Your task to perform on an android device: Do I have any events tomorrow? Image 0: 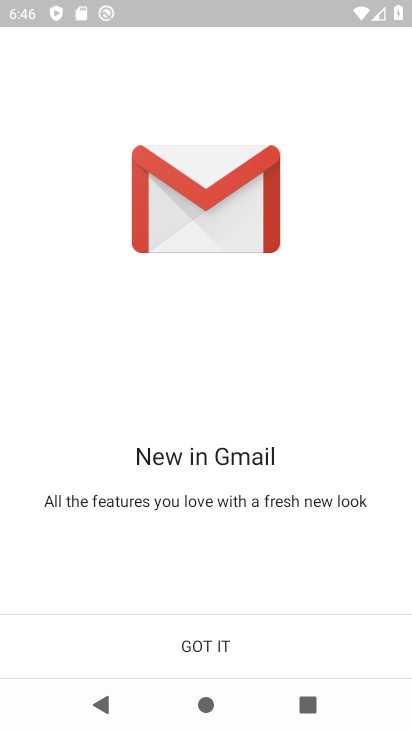
Step 0: press home button
Your task to perform on an android device: Do I have any events tomorrow? Image 1: 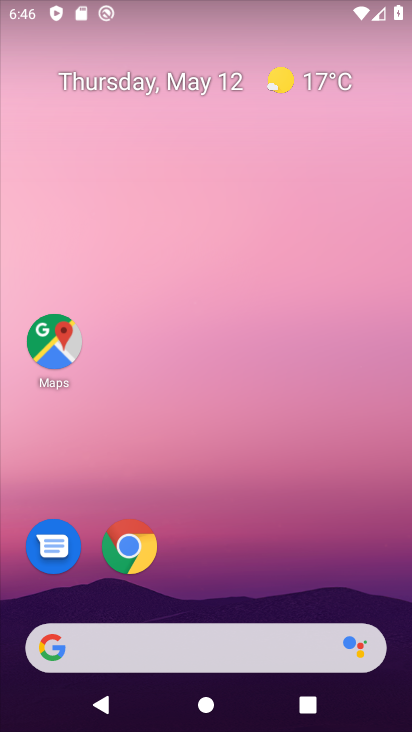
Step 1: drag from (216, 523) to (169, 121)
Your task to perform on an android device: Do I have any events tomorrow? Image 2: 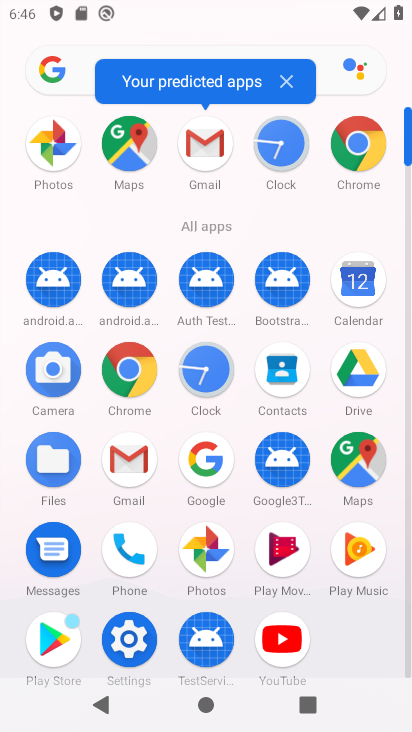
Step 2: click (358, 277)
Your task to perform on an android device: Do I have any events tomorrow? Image 3: 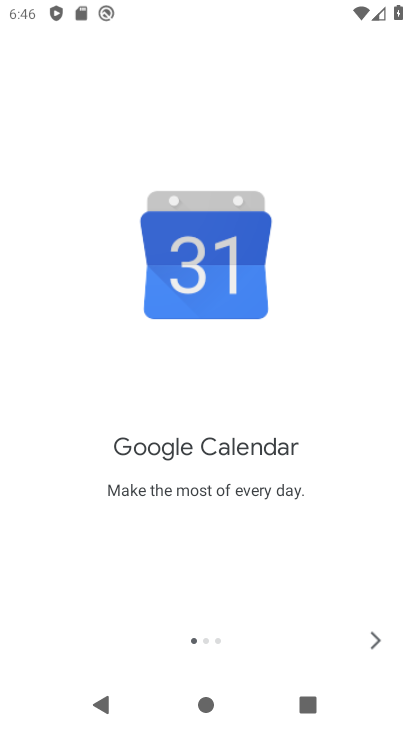
Step 3: click (372, 641)
Your task to perform on an android device: Do I have any events tomorrow? Image 4: 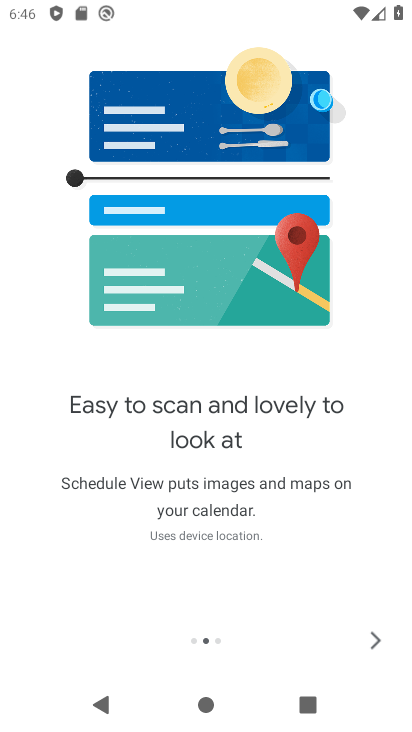
Step 4: click (372, 641)
Your task to perform on an android device: Do I have any events tomorrow? Image 5: 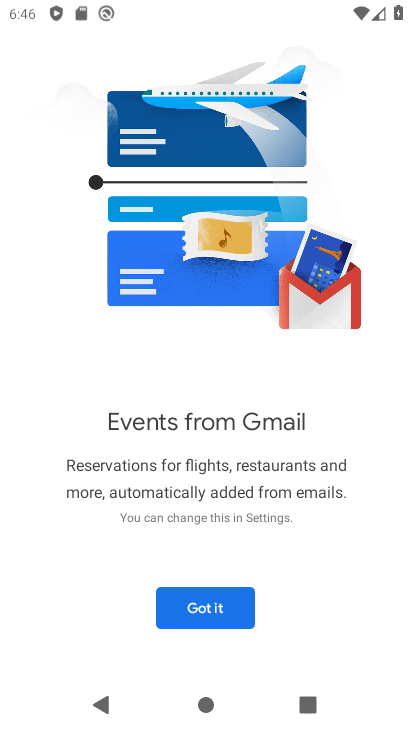
Step 5: click (214, 608)
Your task to perform on an android device: Do I have any events tomorrow? Image 6: 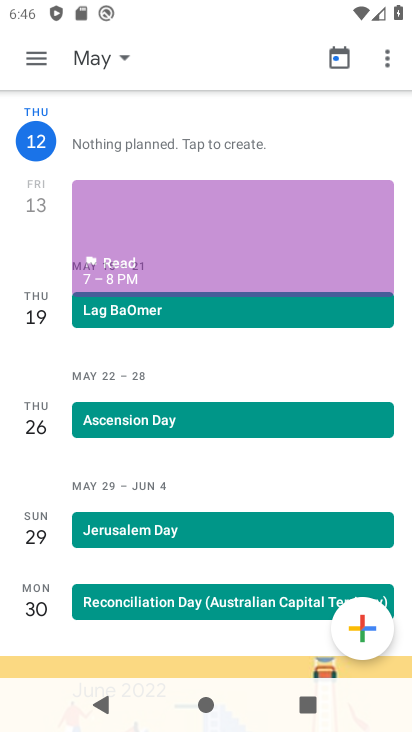
Step 6: click (36, 59)
Your task to perform on an android device: Do I have any events tomorrow? Image 7: 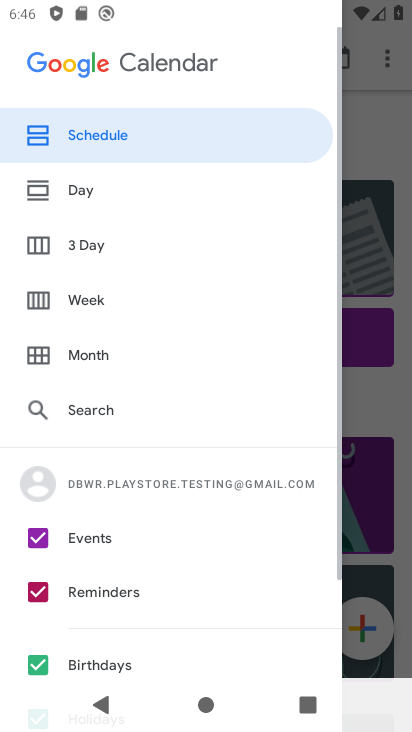
Step 7: click (40, 50)
Your task to perform on an android device: Do I have any events tomorrow? Image 8: 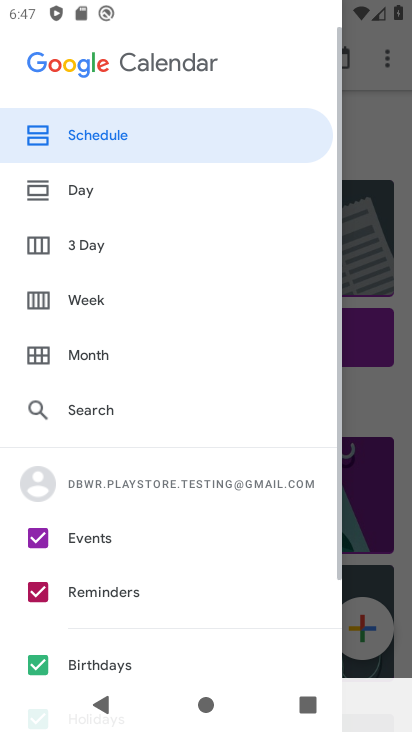
Step 8: click (93, 194)
Your task to perform on an android device: Do I have any events tomorrow? Image 9: 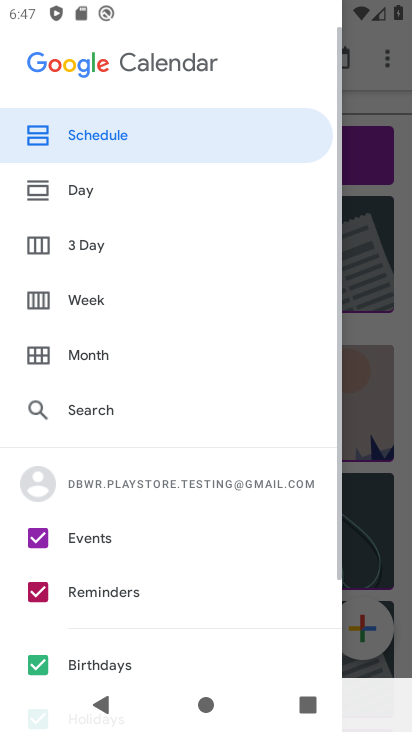
Step 9: click (81, 191)
Your task to perform on an android device: Do I have any events tomorrow? Image 10: 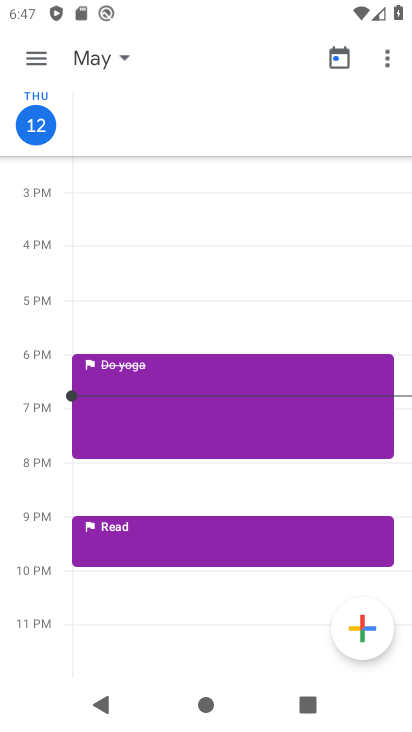
Step 10: click (121, 55)
Your task to perform on an android device: Do I have any events tomorrow? Image 11: 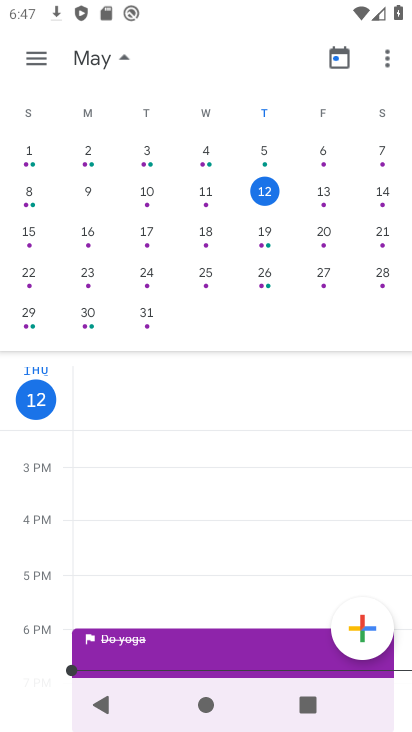
Step 11: click (322, 187)
Your task to perform on an android device: Do I have any events tomorrow? Image 12: 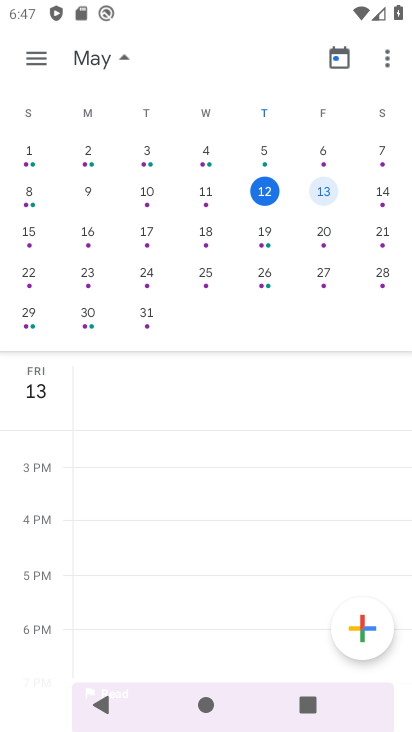
Step 12: task complete